Your task to perform on an android device: Open notification settings Image 0: 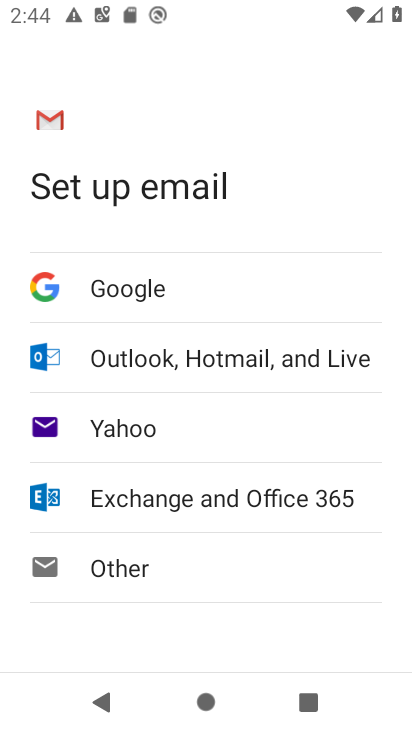
Step 0: press home button
Your task to perform on an android device: Open notification settings Image 1: 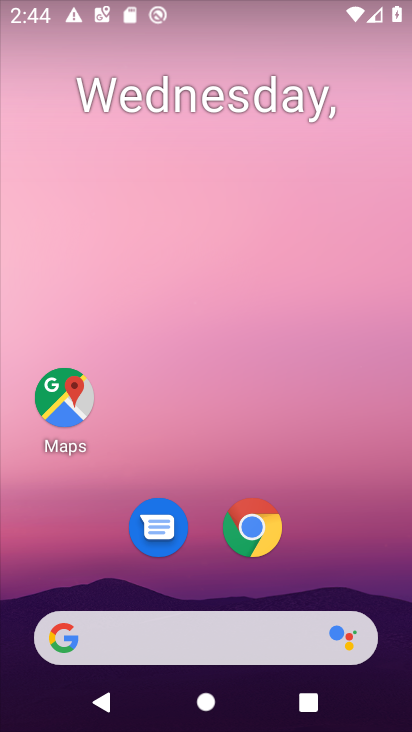
Step 1: drag from (322, 547) to (273, 102)
Your task to perform on an android device: Open notification settings Image 2: 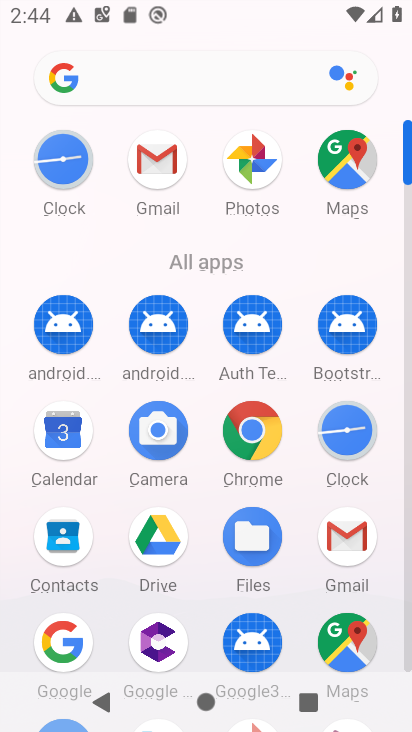
Step 2: drag from (205, 509) to (225, 203)
Your task to perform on an android device: Open notification settings Image 3: 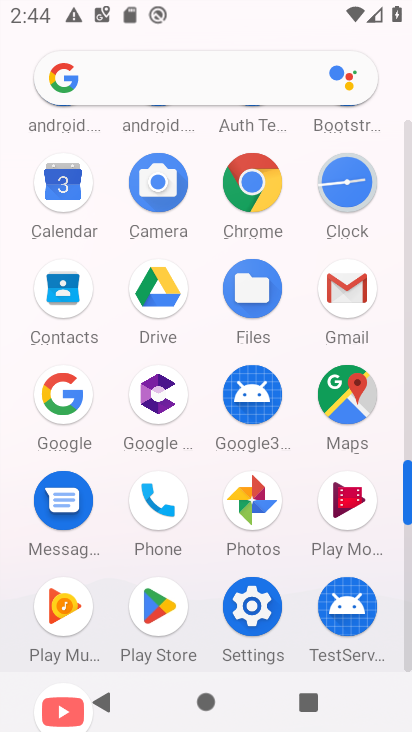
Step 3: click (266, 602)
Your task to perform on an android device: Open notification settings Image 4: 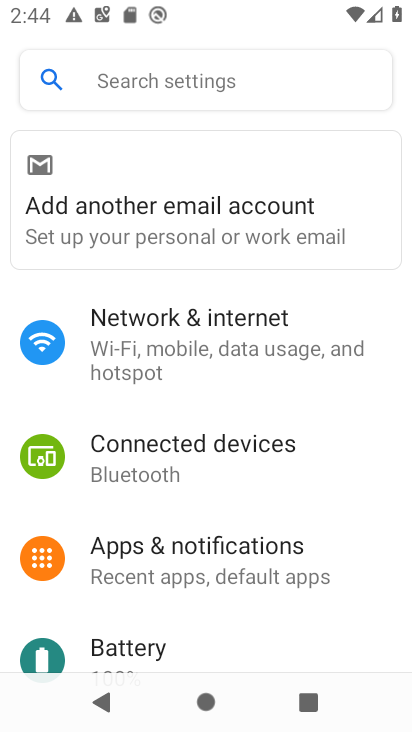
Step 4: click (253, 538)
Your task to perform on an android device: Open notification settings Image 5: 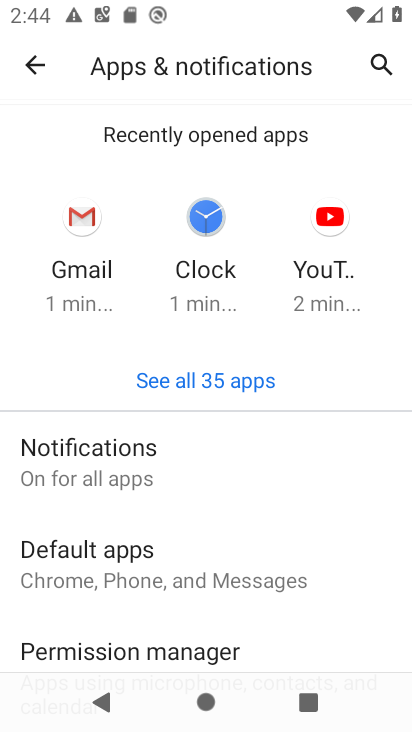
Step 5: click (127, 459)
Your task to perform on an android device: Open notification settings Image 6: 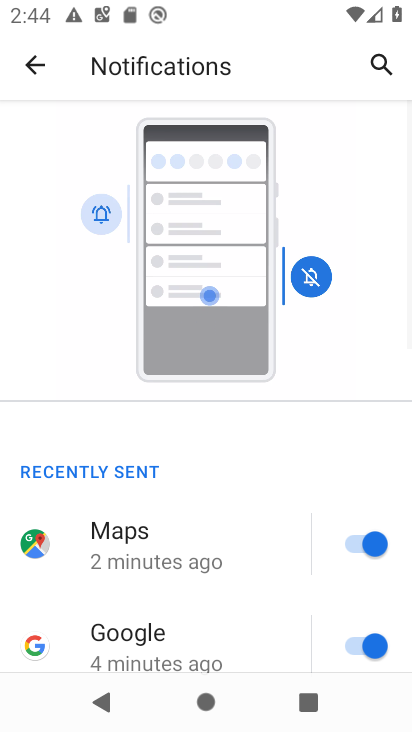
Step 6: task complete